Your task to perform on an android device: What's on my calendar tomorrow? Image 0: 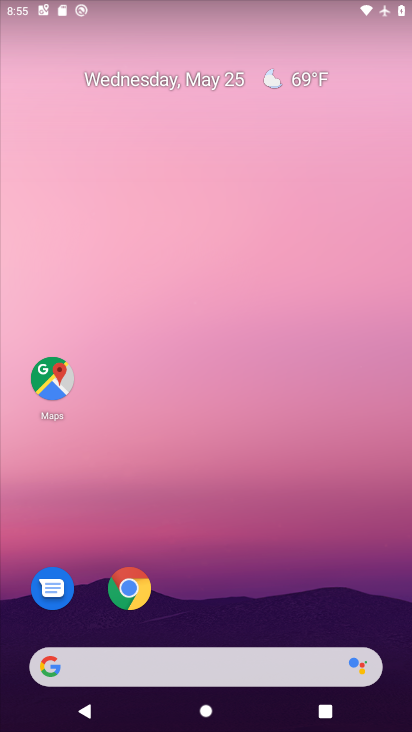
Step 0: drag from (365, 611) to (393, 193)
Your task to perform on an android device: What's on my calendar tomorrow? Image 1: 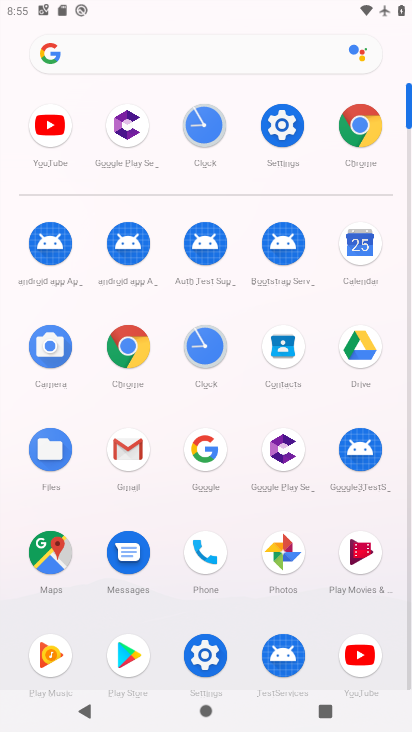
Step 1: click (368, 249)
Your task to perform on an android device: What's on my calendar tomorrow? Image 2: 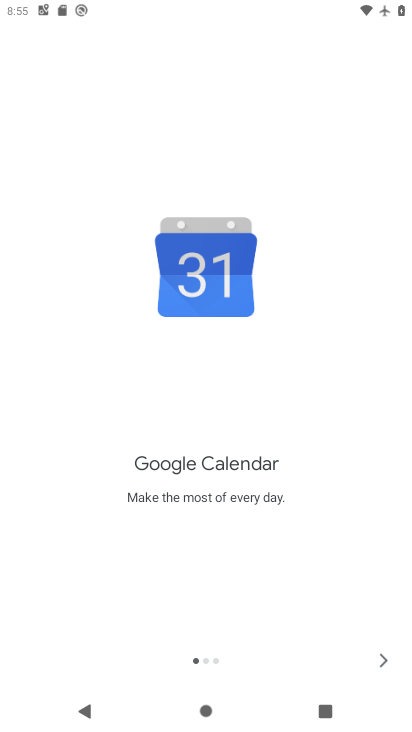
Step 2: click (387, 659)
Your task to perform on an android device: What's on my calendar tomorrow? Image 3: 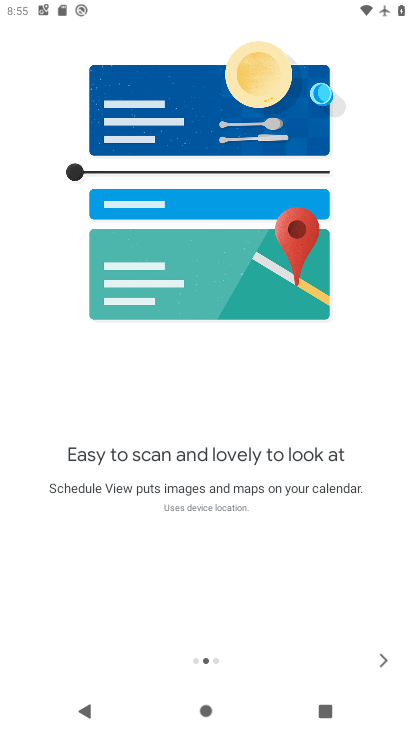
Step 3: click (387, 659)
Your task to perform on an android device: What's on my calendar tomorrow? Image 4: 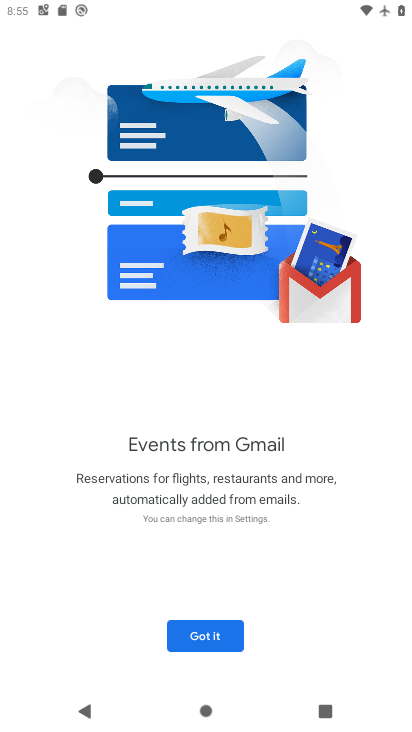
Step 4: click (238, 635)
Your task to perform on an android device: What's on my calendar tomorrow? Image 5: 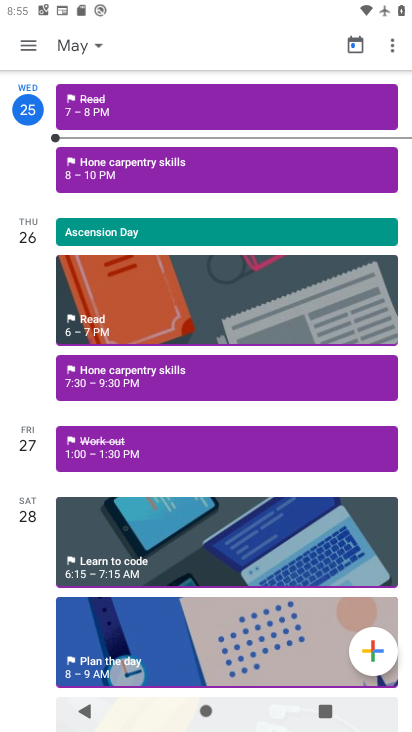
Step 5: click (222, 458)
Your task to perform on an android device: What's on my calendar tomorrow? Image 6: 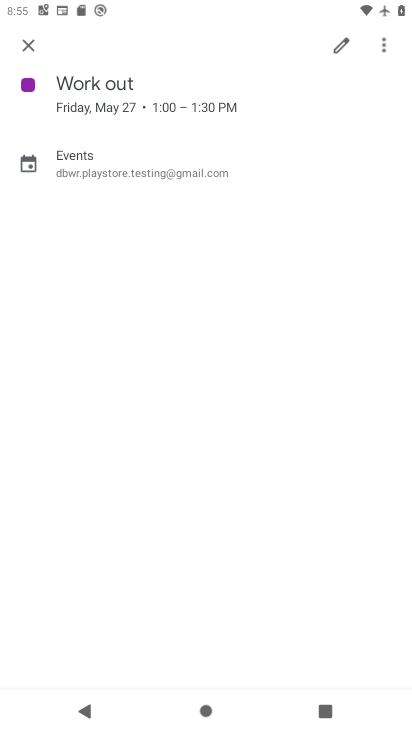
Step 6: task complete